Your task to perform on an android device: check android version Image 0: 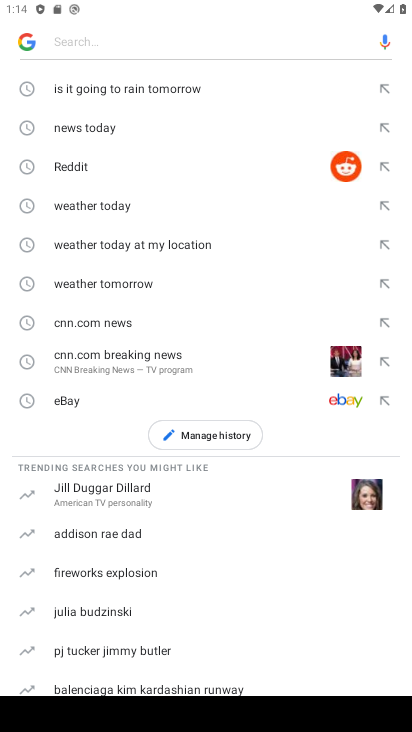
Step 0: press home button
Your task to perform on an android device: check android version Image 1: 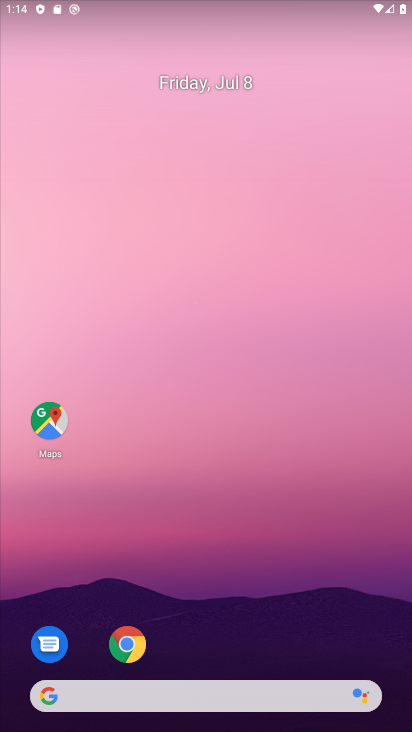
Step 1: drag from (269, 588) to (273, 0)
Your task to perform on an android device: check android version Image 2: 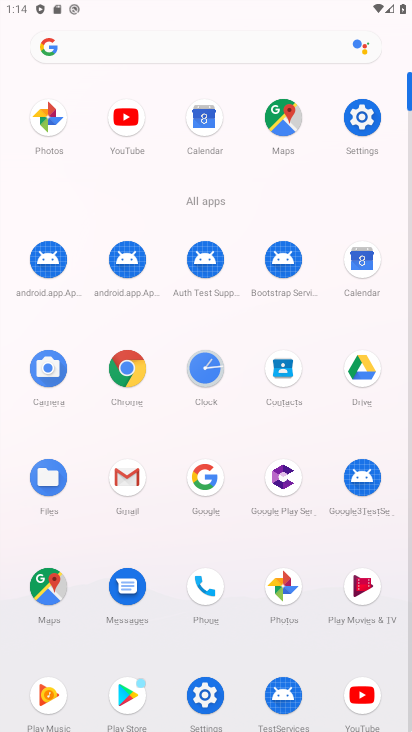
Step 2: click (356, 119)
Your task to perform on an android device: check android version Image 3: 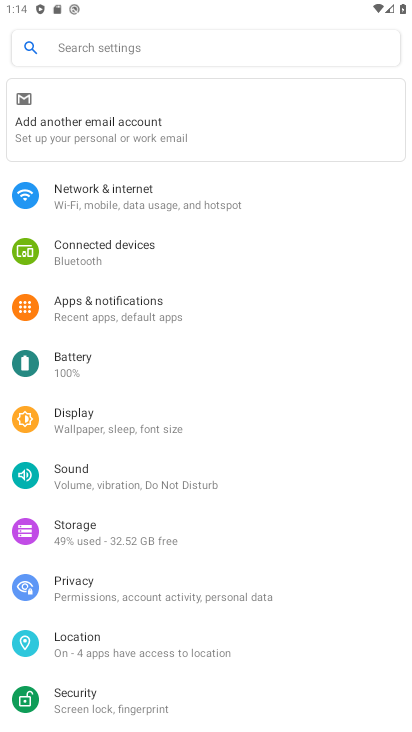
Step 3: drag from (249, 687) to (242, 174)
Your task to perform on an android device: check android version Image 4: 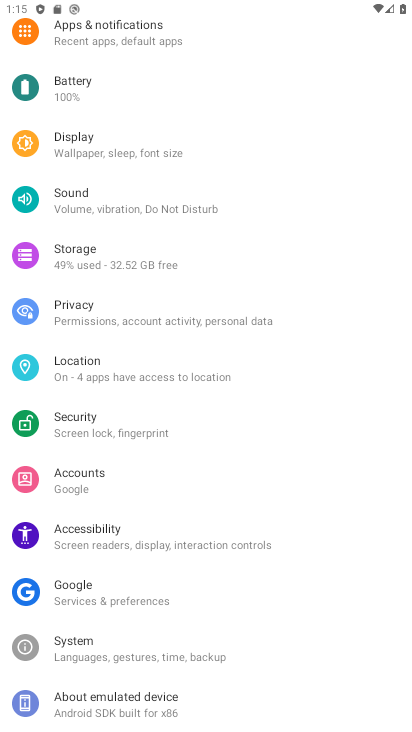
Step 4: click (80, 708)
Your task to perform on an android device: check android version Image 5: 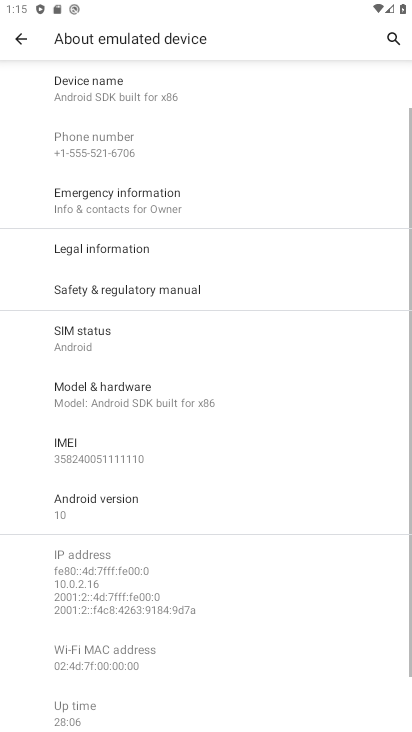
Step 5: click (97, 494)
Your task to perform on an android device: check android version Image 6: 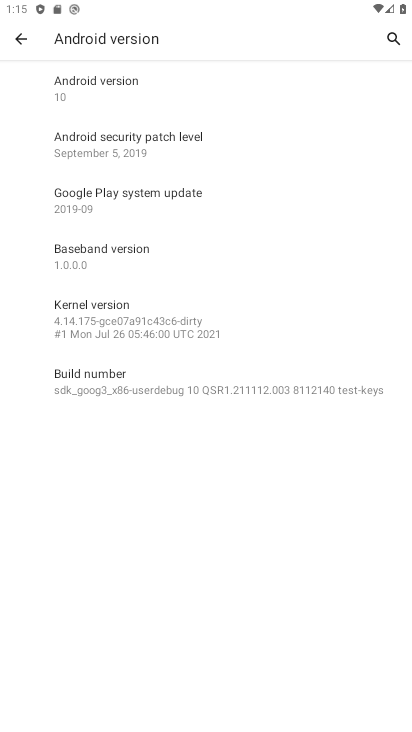
Step 6: task complete